Your task to perform on an android device: open sync settings in chrome Image 0: 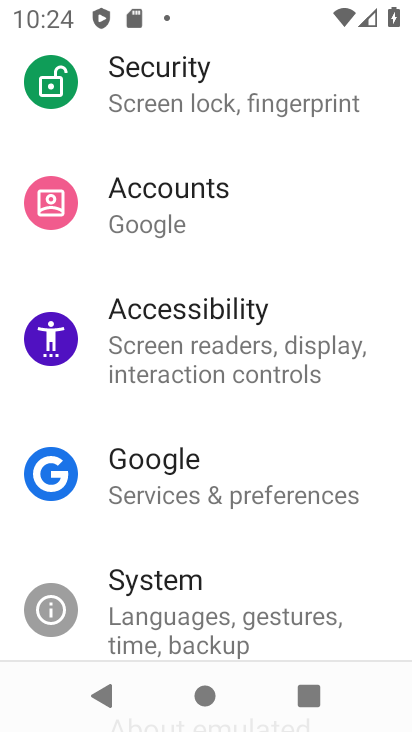
Step 0: press home button
Your task to perform on an android device: open sync settings in chrome Image 1: 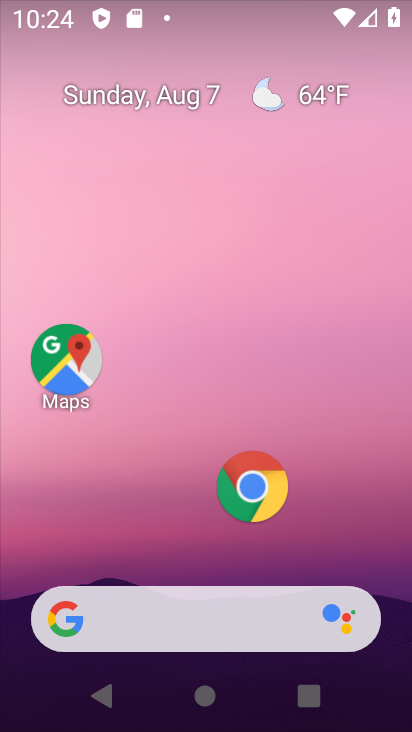
Step 1: click (269, 504)
Your task to perform on an android device: open sync settings in chrome Image 2: 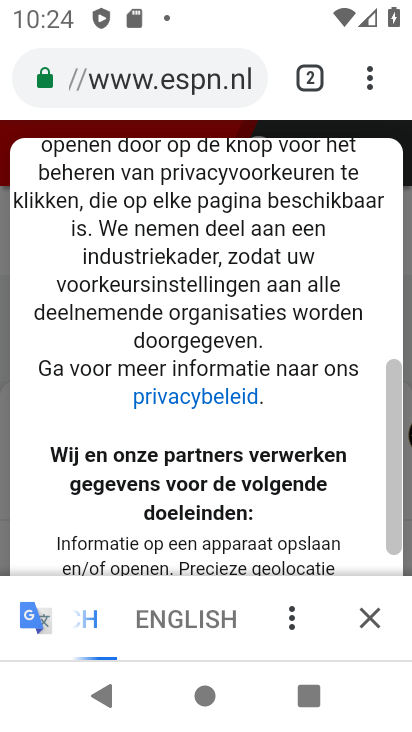
Step 2: click (358, 72)
Your task to perform on an android device: open sync settings in chrome Image 3: 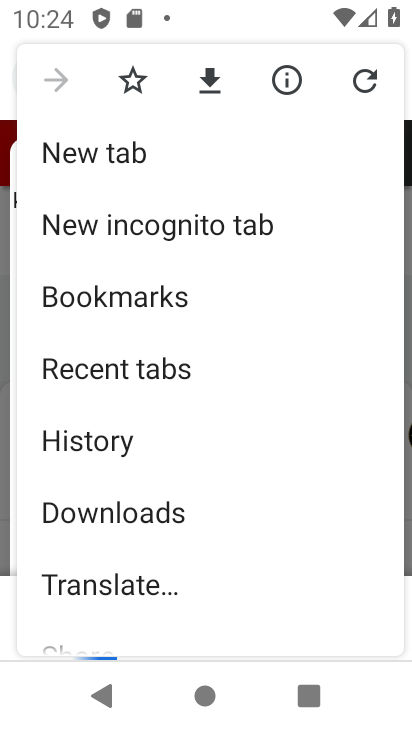
Step 3: drag from (216, 602) to (252, 4)
Your task to perform on an android device: open sync settings in chrome Image 4: 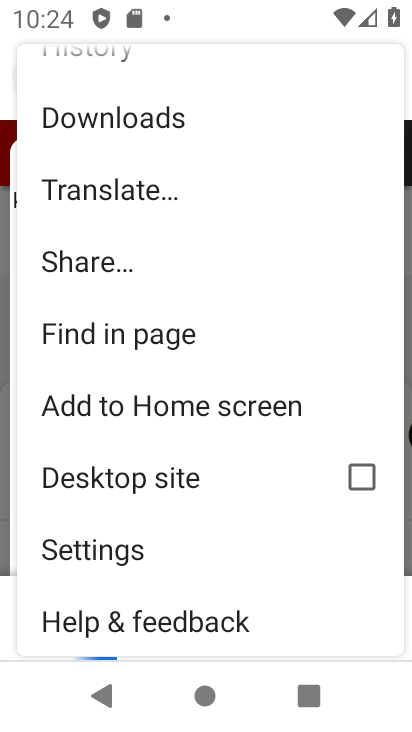
Step 4: click (145, 546)
Your task to perform on an android device: open sync settings in chrome Image 5: 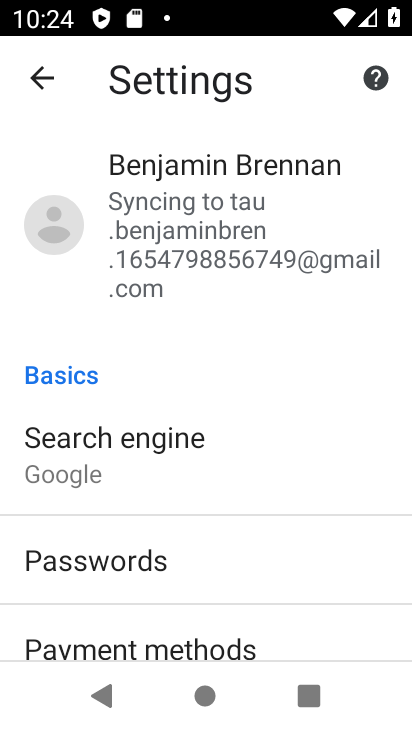
Step 5: drag from (245, 600) to (291, 16)
Your task to perform on an android device: open sync settings in chrome Image 6: 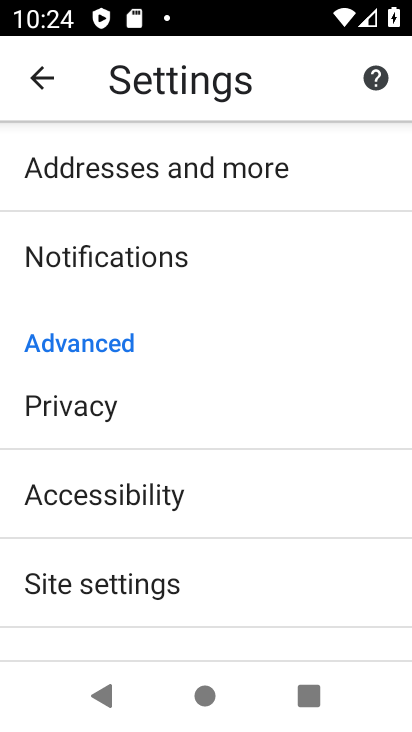
Step 6: drag from (295, 232) to (298, 723)
Your task to perform on an android device: open sync settings in chrome Image 7: 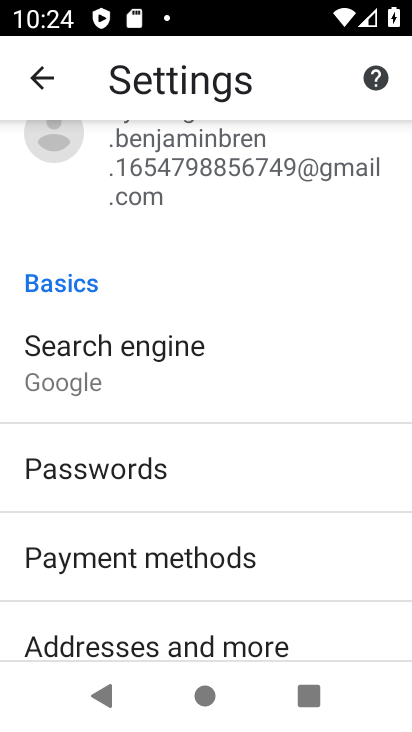
Step 7: drag from (291, 481) to (278, 672)
Your task to perform on an android device: open sync settings in chrome Image 8: 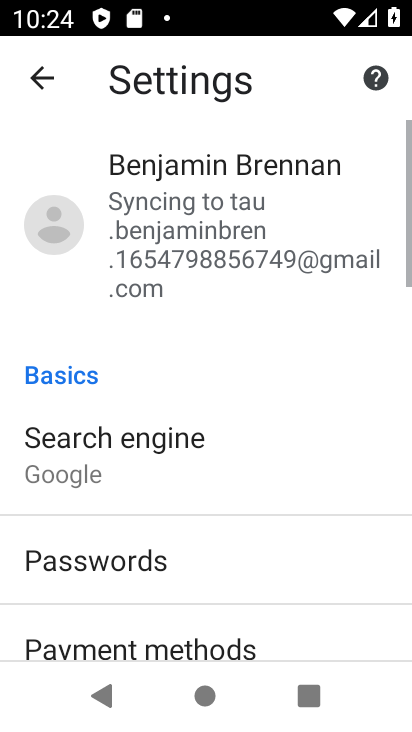
Step 8: click (273, 250)
Your task to perform on an android device: open sync settings in chrome Image 9: 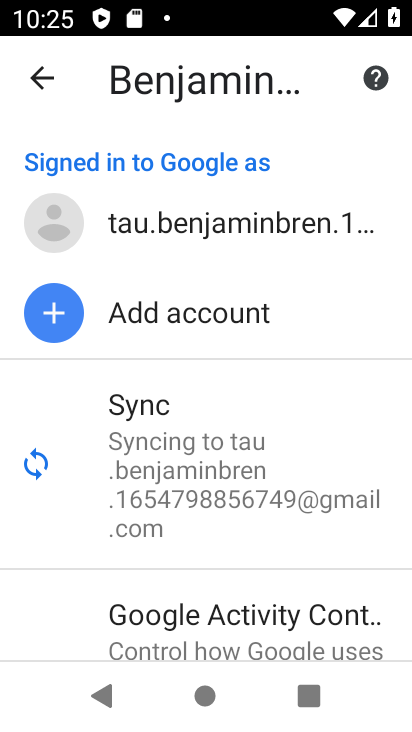
Step 9: task complete